Your task to perform on an android device: Open Amazon Image 0: 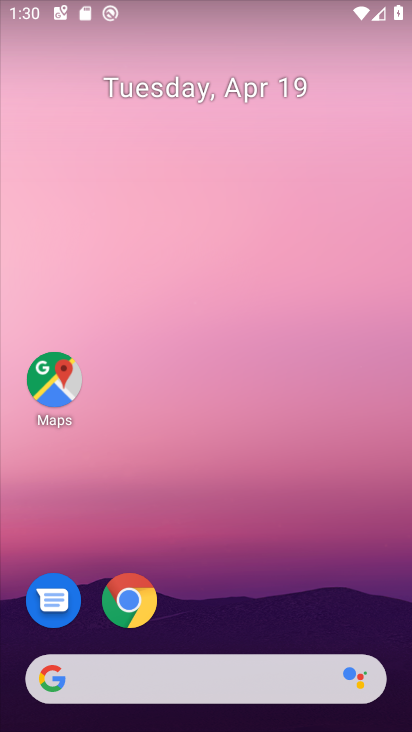
Step 0: drag from (286, 551) to (223, 31)
Your task to perform on an android device: Open Amazon Image 1: 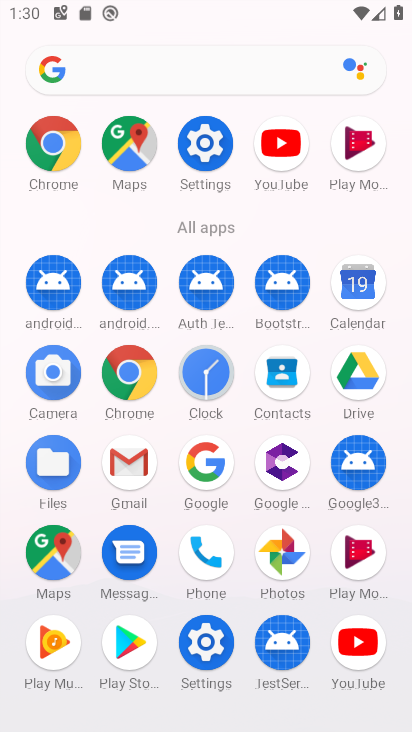
Step 1: click (133, 369)
Your task to perform on an android device: Open Amazon Image 2: 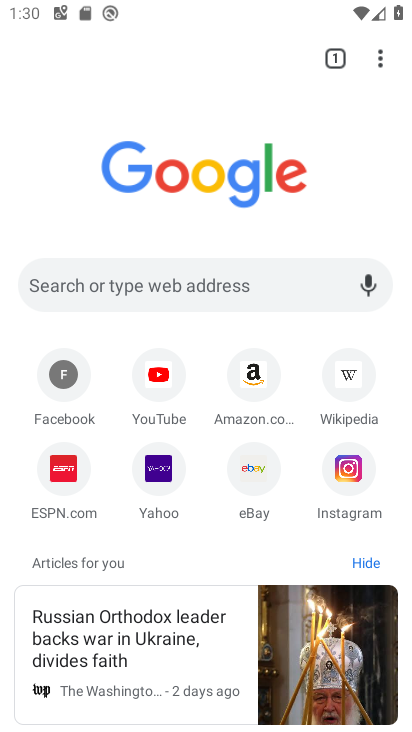
Step 2: click (259, 388)
Your task to perform on an android device: Open Amazon Image 3: 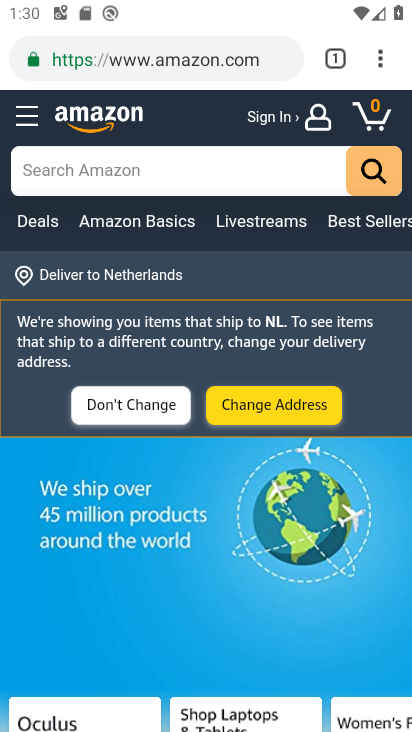
Step 3: task complete